Your task to perform on an android device: Find coffee shops on Maps Image 0: 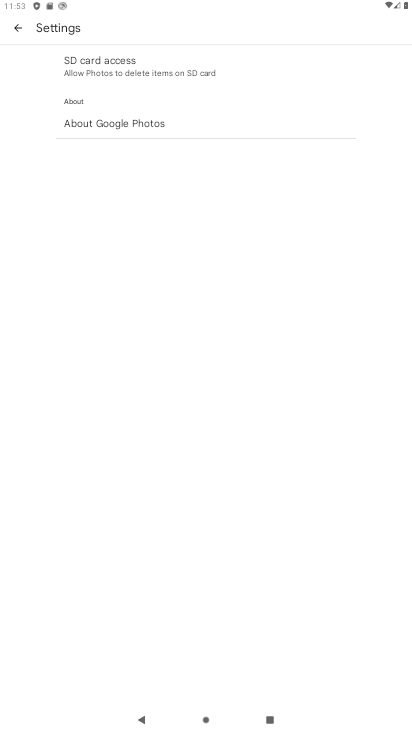
Step 0: press home button
Your task to perform on an android device: Find coffee shops on Maps Image 1: 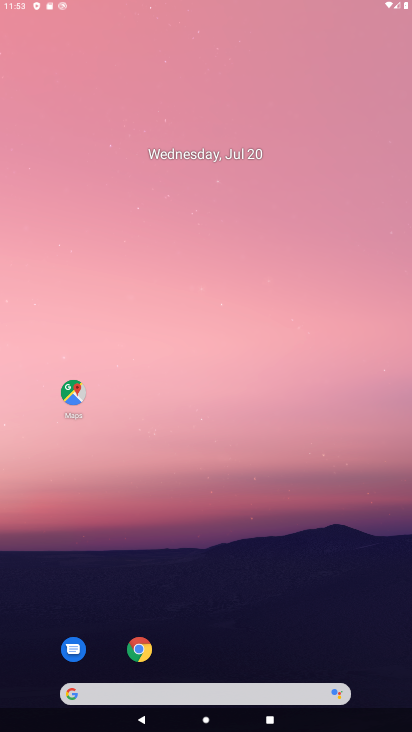
Step 1: drag from (144, 691) to (406, 565)
Your task to perform on an android device: Find coffee shops on Maps Image 2: 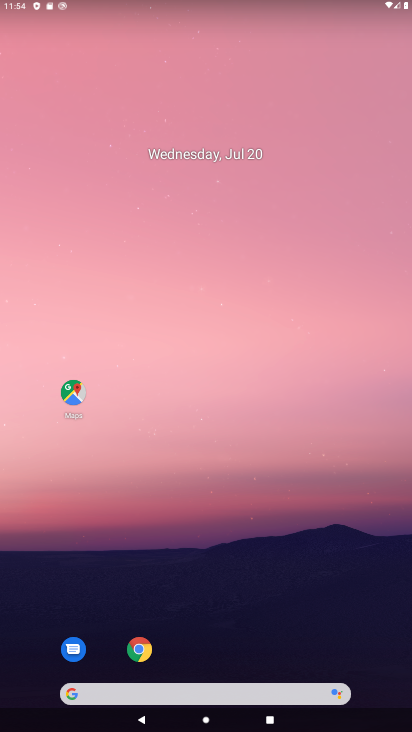
Step 2: click (248, 636)
Your task to perform on an android device: Find coffee shops on Maps Image 3: 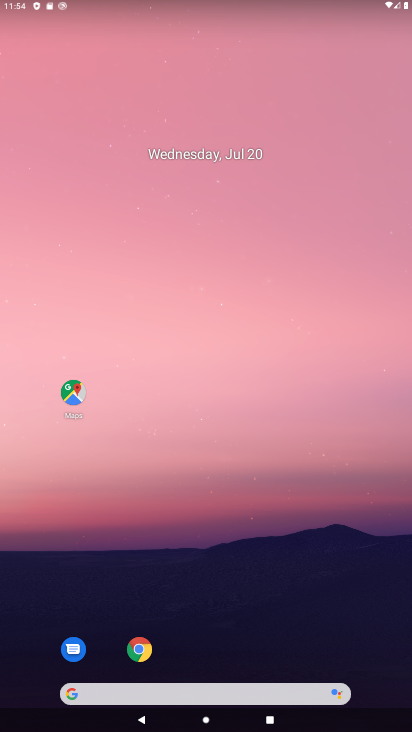
Step 3: drag from (235, 577) to (401, 2)
Your task to perform on an android device: Find coffee shops on Maps Image 4: 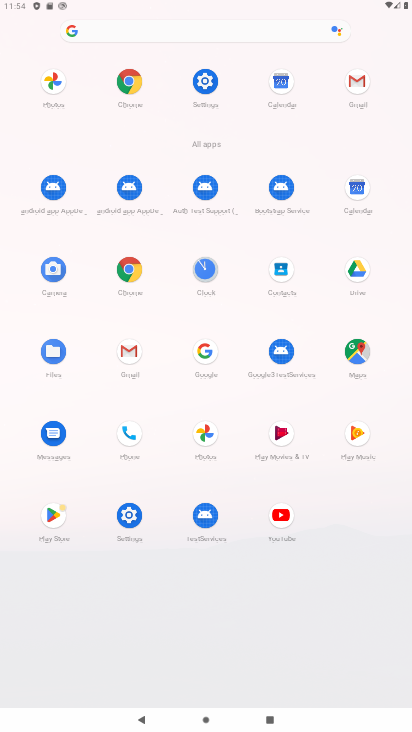
Step 4: drag from (247, 54) to (267, 8)
Your task to perform on an android device: Find coffee shops on Maps Image 5: 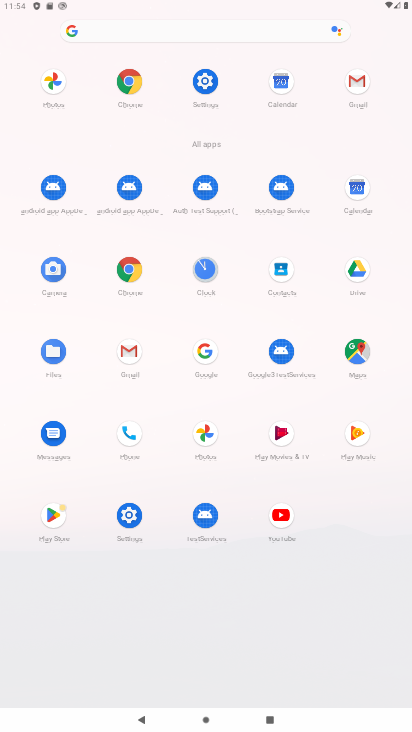
Step 5: click (363, 357)
Your task to perform on an android device: Find coffee shops on Maps Image 6: 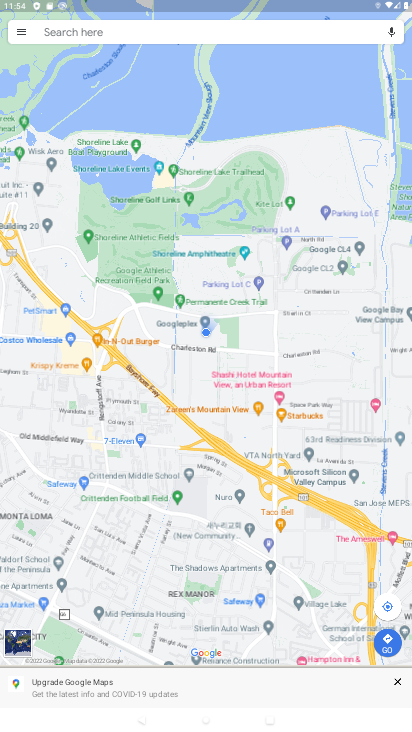
Step 6: click (229, 31)
Your task to perform on an android device: Find coffee shops on Maps Image 7: 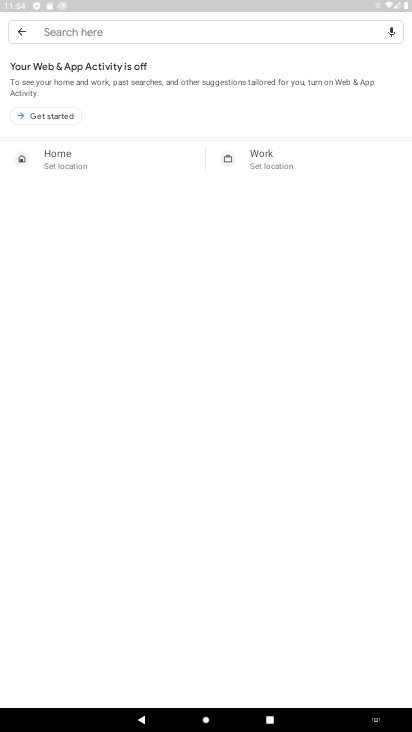
Step 7: type " coffee shops"
Your task to perform on an android device: Find coffee shops on Maps Image 8: 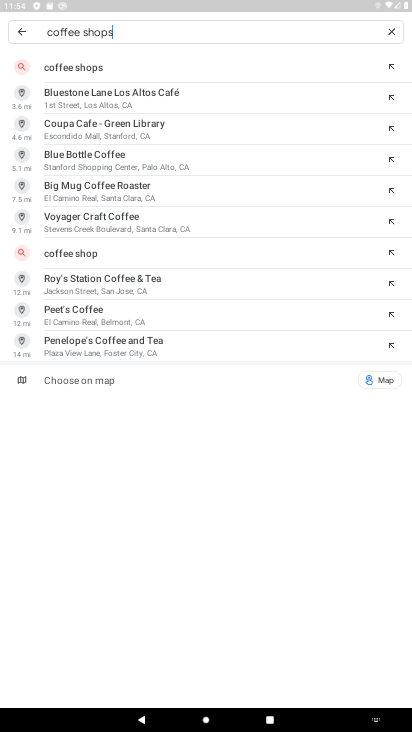
Step 8: click (65, 62)
Your task to perform on an android device: Find coffee shops on Maps Image 9: 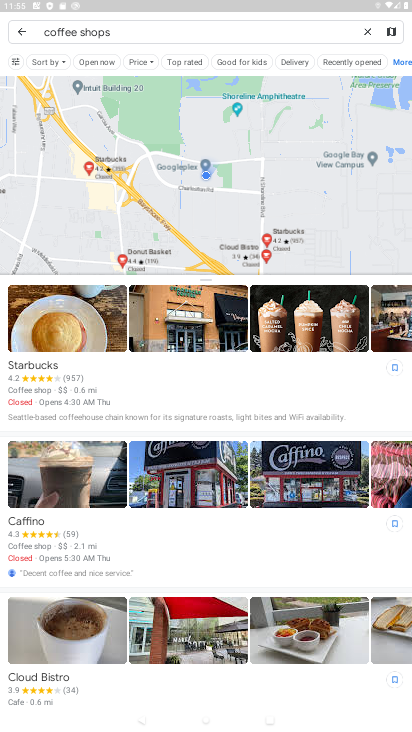
Step 9: task complete